Your task to perform on an android device: Search for Italian restaurants on Maps Image 0: 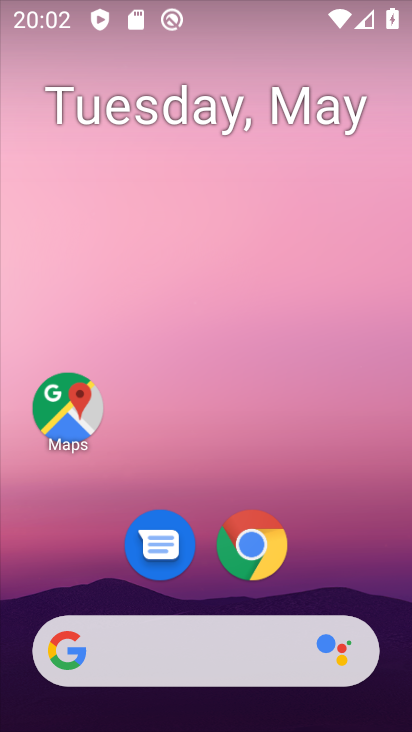
Step 0: click (74, 410)
Your task to perform on an android device: Search for Italian restaurants on Maps Image 1: 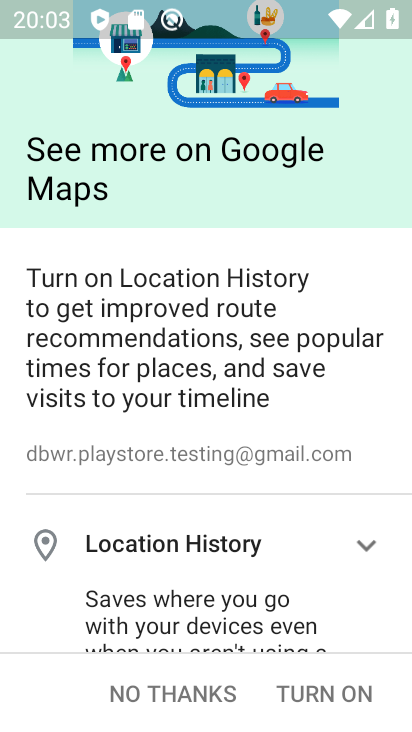
Step 1: click (301, 690)
Your task to perform on an android device: Search for Italian restaurants on Maps Image 2: 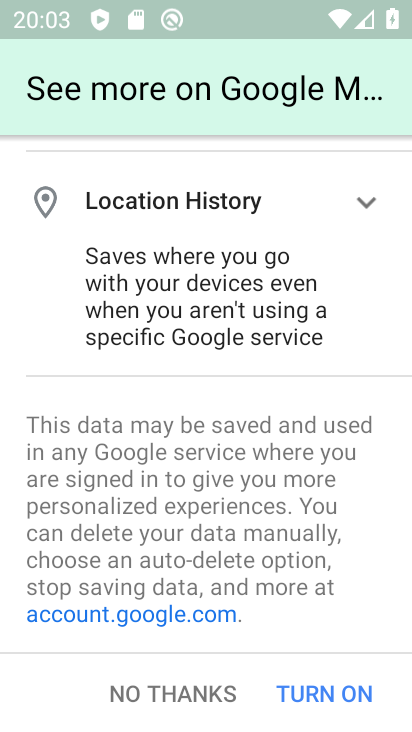
Step 2: click (354, 691)
Your task to perform on an android device: Search for Italian restaurants on Maps Image 3: 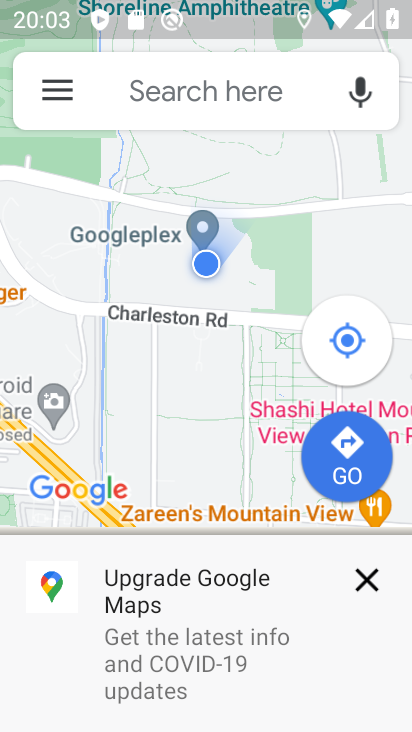
Step 3: click (371, 584)
Your task to perform on an android device: Search for Italian restaurants on Maps Image 4: 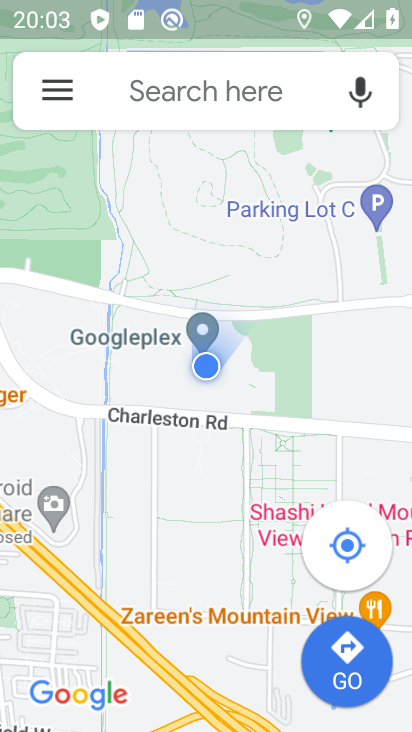
Step 4: click (198, 99)
Your task to perform on an android device: Search for Italian restaurants on Maps Image 5: 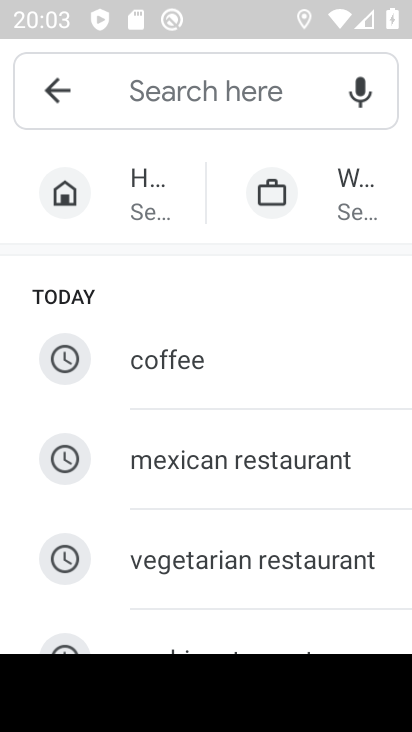
Step 5: drag from (279, 544) to (253, 372)
Your task to perform on an android device: Search for Italian restaurants on Maps Image 6: 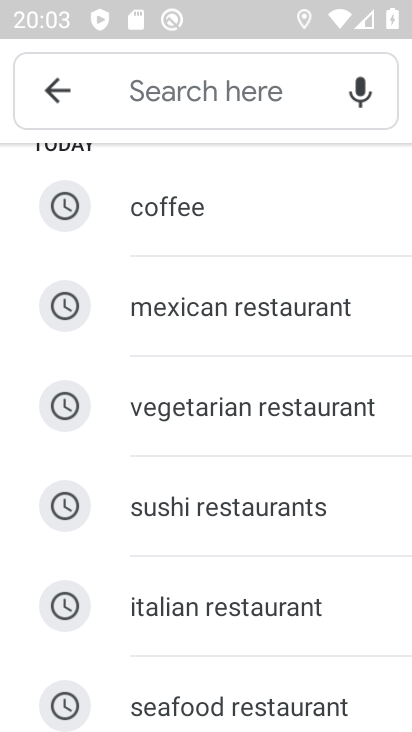
Step 6: click (246, 614)
Your task to perform on an android device: Search for Italian restaurants on Maps Image 7: 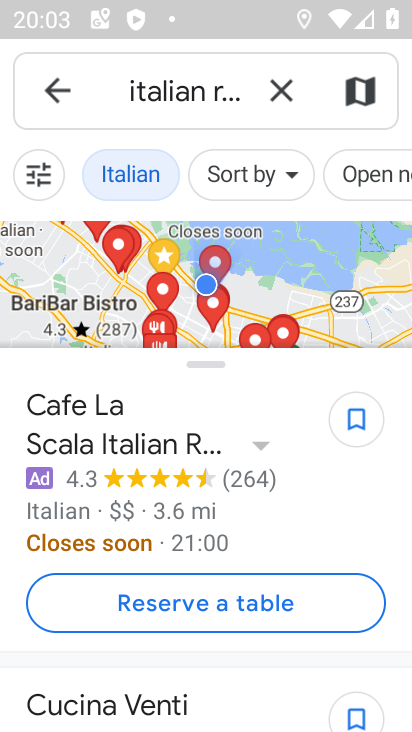
Step 7: task complete